Your task to perform on an android device: Open eBay Image 0: 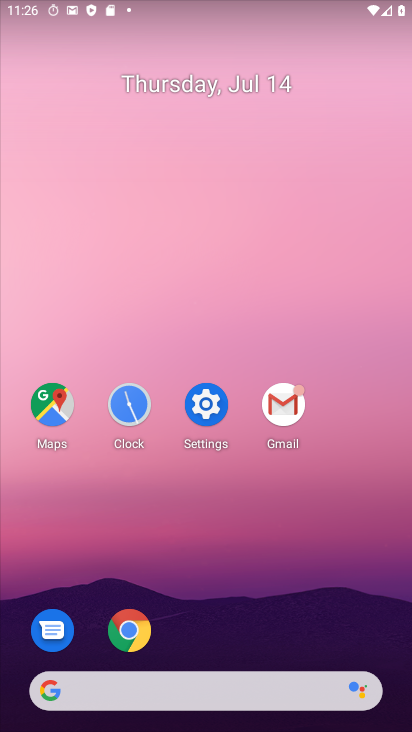
Step 0: click (138, 619)
Your task to perform on an android device: Open eBay Image 1: 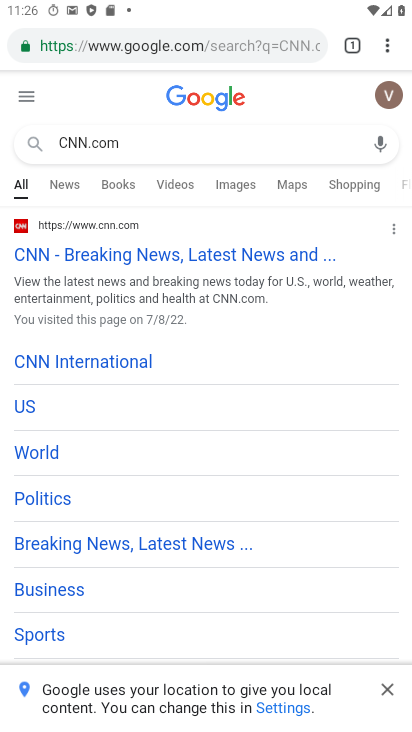
Step 1: click (314, 44)
Your task to perform on an android device: Open eBay Image 2: 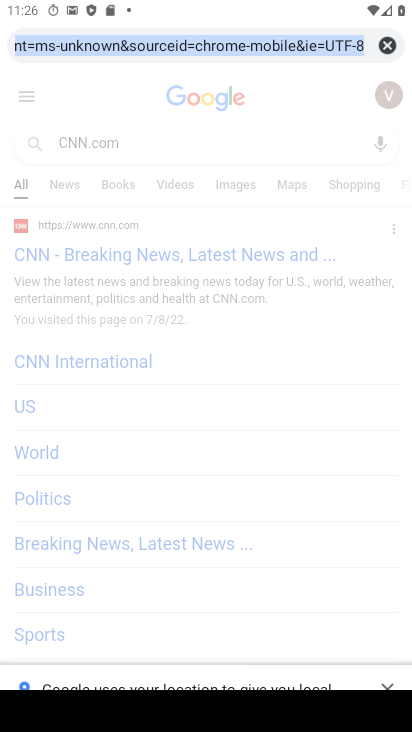
Step 2: click (387, 44)
Your task to perform on an android device: Open eBay Image 3: 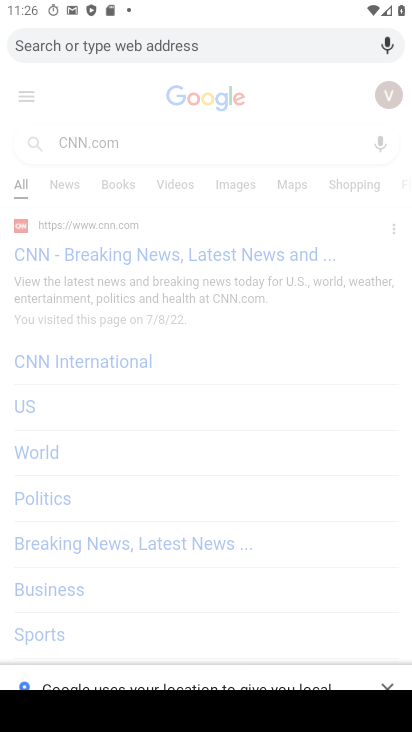
Step 3: type "eBay"
Your task to perform on an android device: Open eBay Image 4: 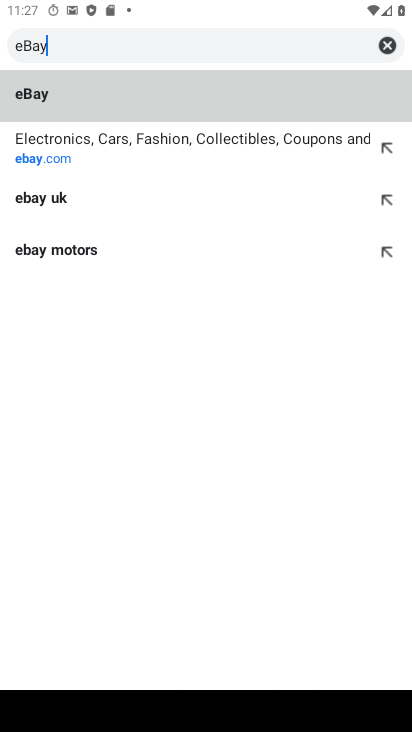
Step 4: click (114, 97)
Your task to perform on an android device: Open eBay Image 5: 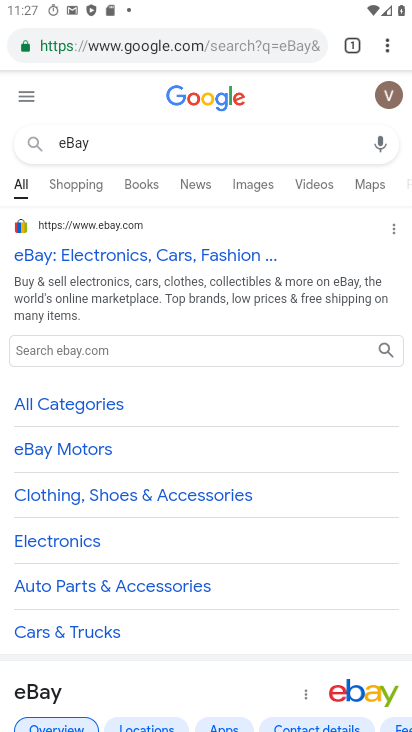
Step 5: task complete